Your task to perform on an android device: Open the web browser Image 0: 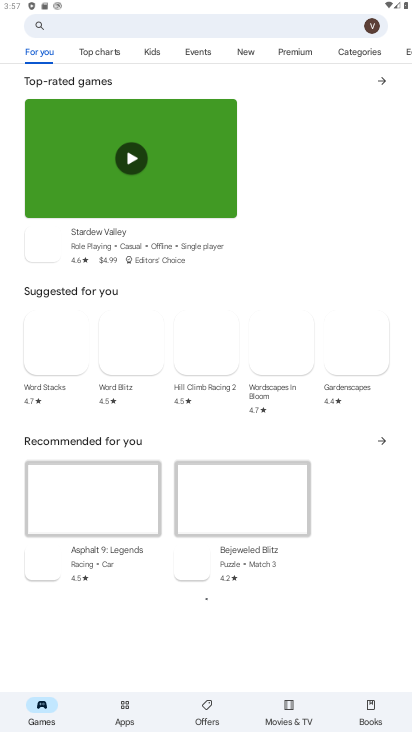
Step 0: press home button
Your task to perform on an android device: Open the web browser Image 1: 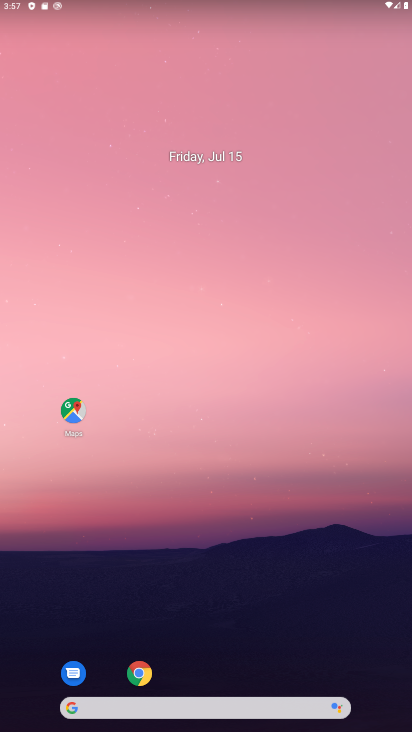
Step 1: drag from (215, 697) to (305, 325)
Your task to perform on an android device: Open the web browser Image 2: 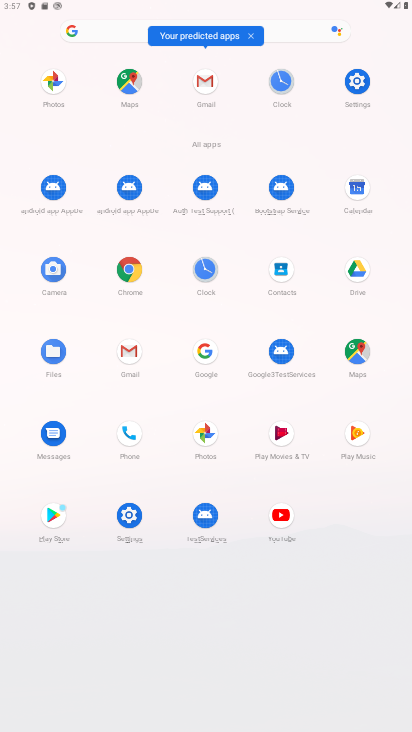
Step 2: click (190, 353)
Your task to perform on an android device: Open the web browser Image 3: 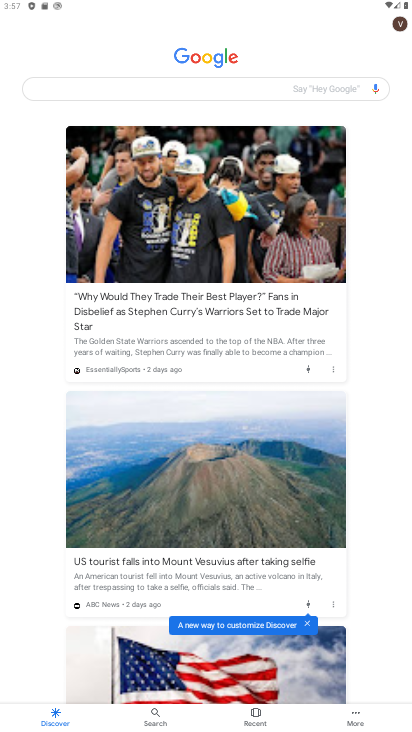
Step 3: task complete